Your task to perform on an android device: set an alarm Image 0: 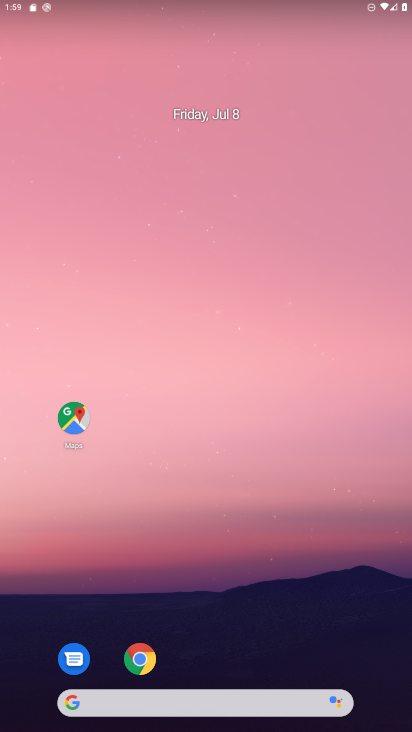
Step 0: drag from (222, 669) to (202, 128)
Your task to perform on an android device: set an alarm Image 1: 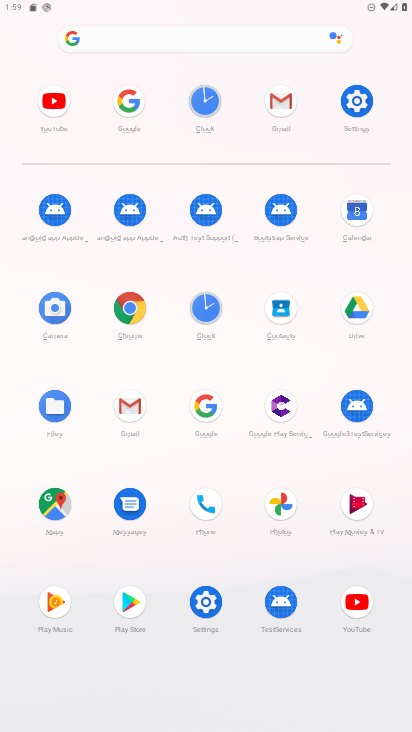
Step 1: click (202, 312)
Your task to perform on an android device: set an alarm Image 2: 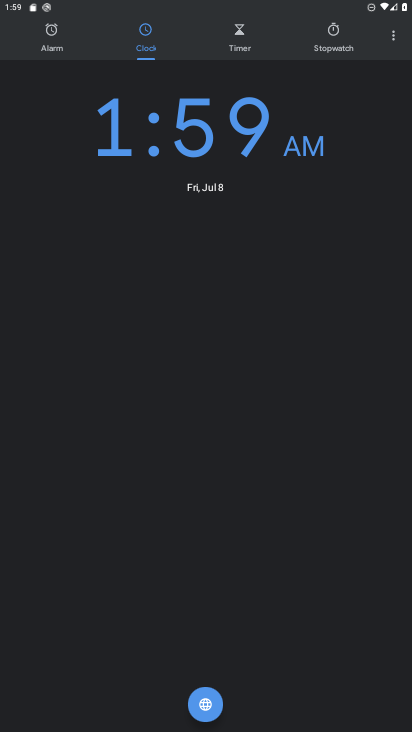
Step 2: click (51, 36)
Your task to perform on an android device: set an alarm Image 3: 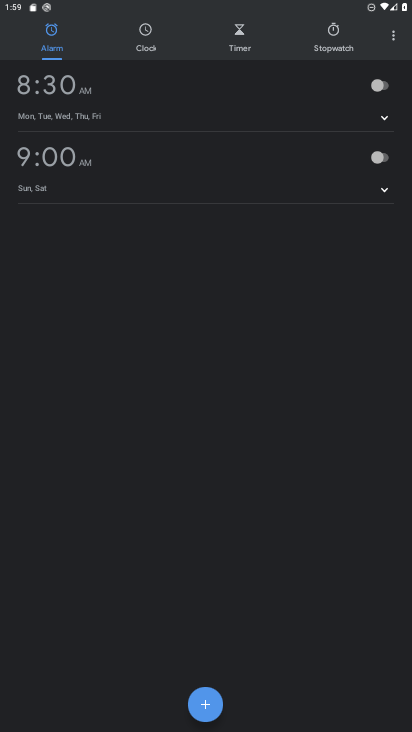
Step 3: click (200, 711)
Your task to perform on an android device: set an alarm Image 4: 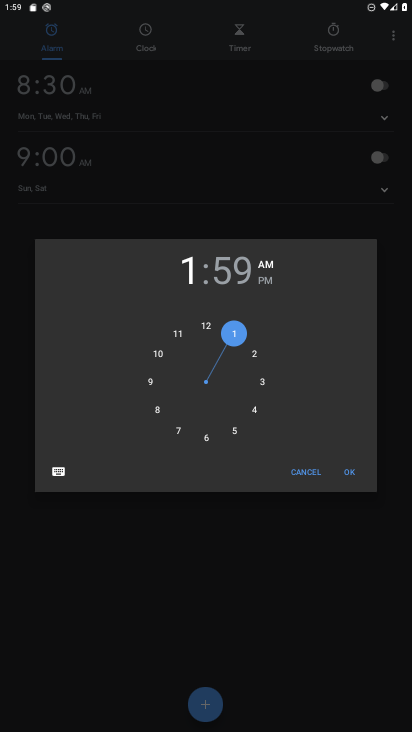
Step 4: click (149, 395)
Your task to perform on an android device: set an alarm Image 5: 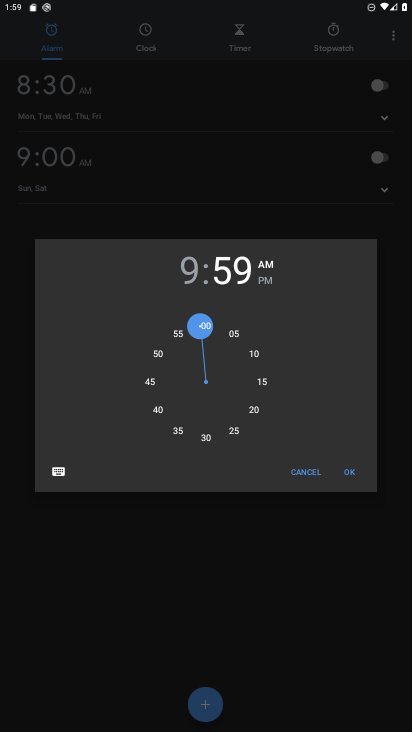
Step 5: click (356, 478)
Your task to perform on an android device: set an alarm Image 6: 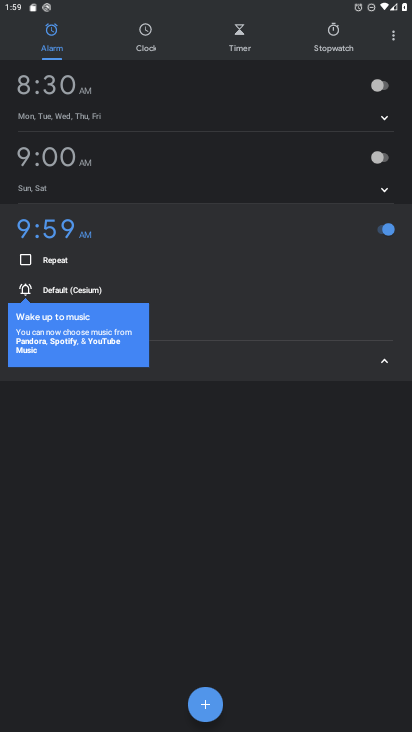
Step 6: click (374, 371)
Your task to perform on an android device: set an alarm Image 7: 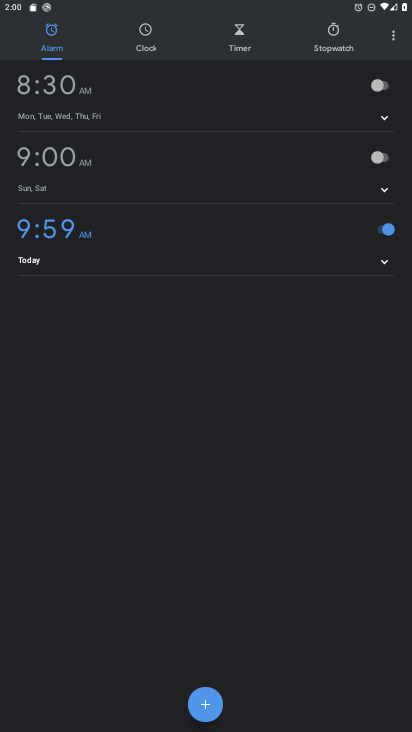
Step 7: task complete